Your task to perform on an android device: turn on translation in the chrome app Image 0: 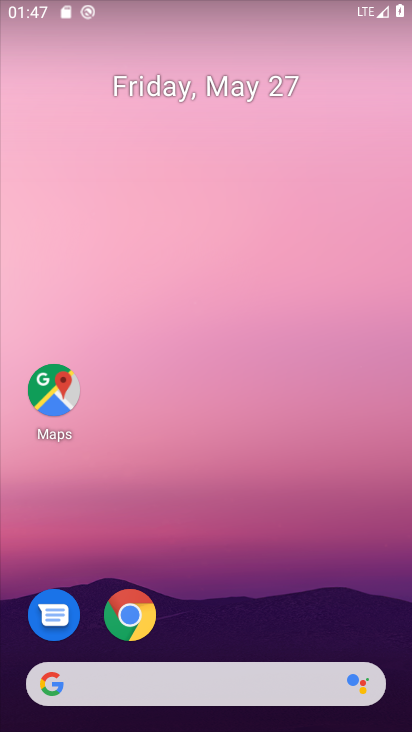
Step 0: drag from (361, 578) to (355, 162)
Your task to perform on an android device: turn on translation in the chrome app Image 1: 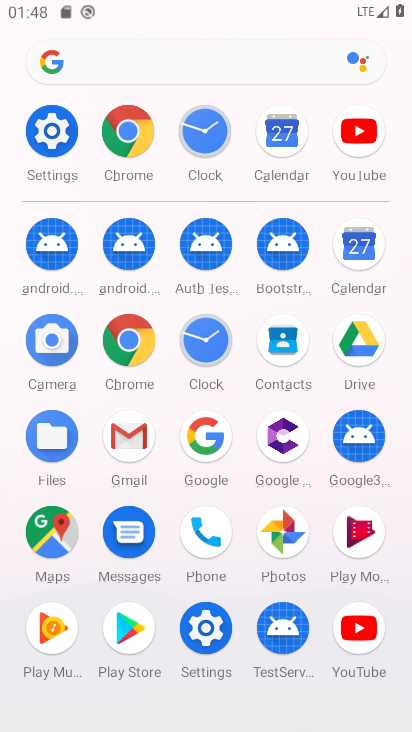
Step 1: click (138, 346)
Your task to perform on an android device: turn on translation in the chrome app Image 2: 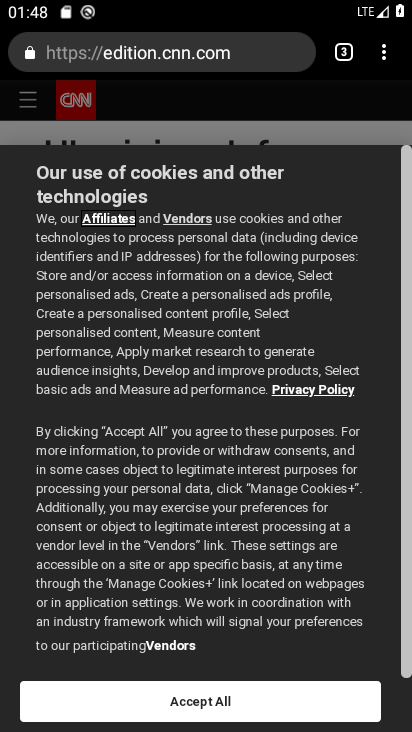
Step 2: click (138, 346)
Your task to perform on an android device: turn on translation in the chrome app Image 3: 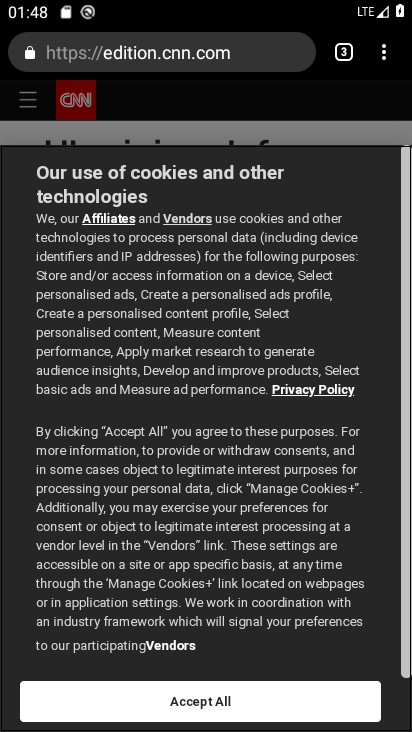
Step 3: click (382, 65)
Your task to perform on an android device: turn on translation in the chrome app Image 4: 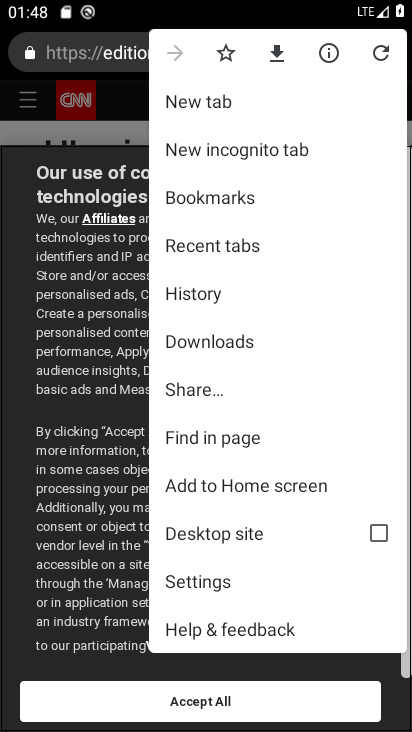
Step 4: click (219, 586)
Your task to perform on an android device: turn on translation in the chrome app Image 5: 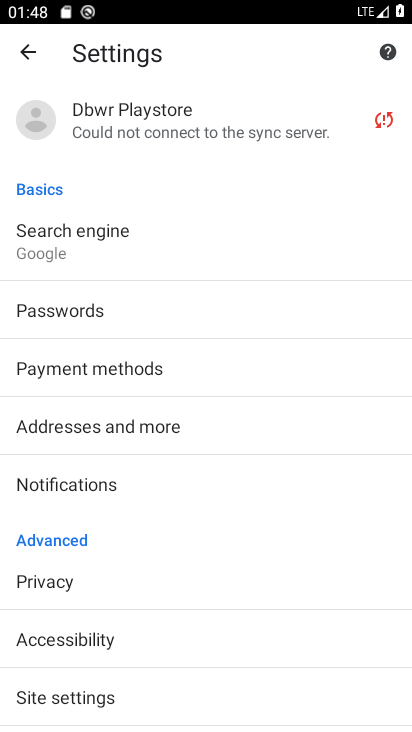
Step 5: drag from (248, 614) to (264, 537)
Your task to perform on an android device: turn on translation in the chrome app Image 6: 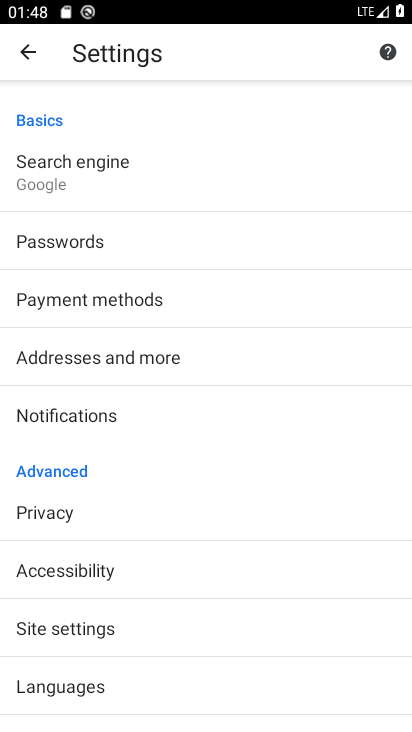
Step 6: drag from (299, 627) to (309, 565)
Your task to perform on an android device: turn on translation in the chrome app Image 7: 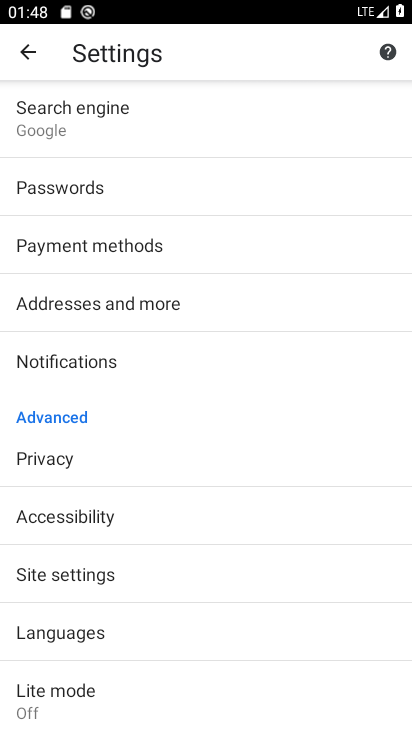
Step 7: drag from (321, 643) to (325, 549)
Your task to perform on an android device: turn on translation in the chrome app Image 8: 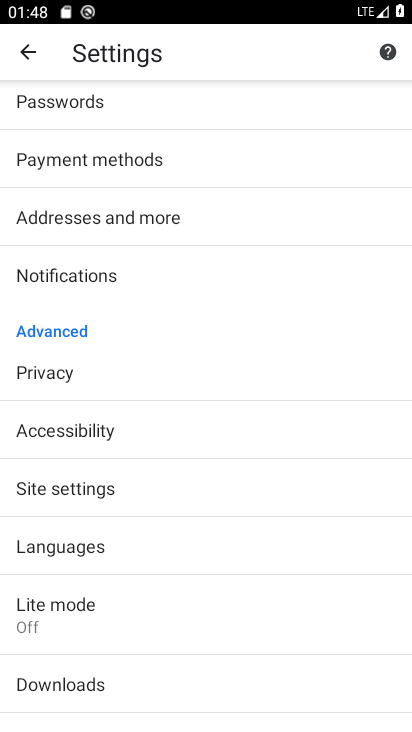
Step 8: drag from (323, 653) to (330, 560)
Your task to perform on an android device: turn on translation in the chrome app Image 9: 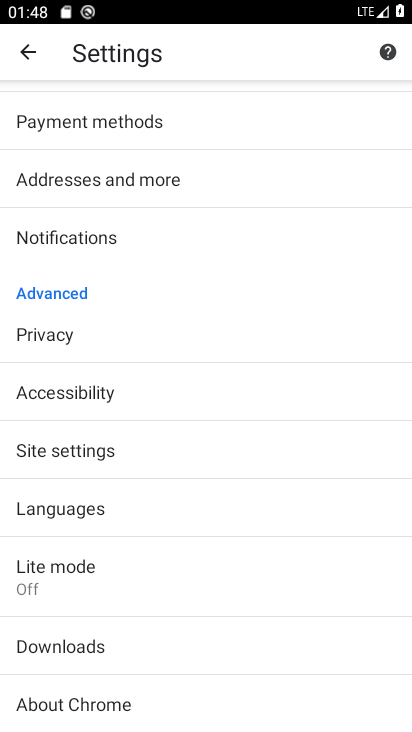
Step 9: drag from (314, 629) to (321, 470)
Your task to perform on an android device: turn on translation in the chrome app Image 10: 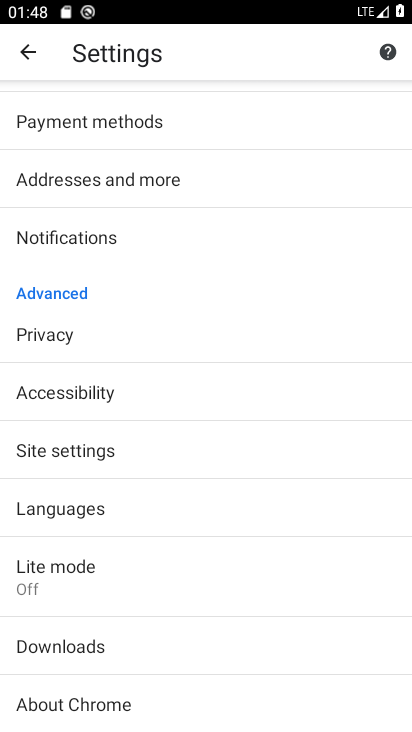
Step 10: click (284, 498)
Your task to perform on an android device: turn on translation in the chrome app Image 11: 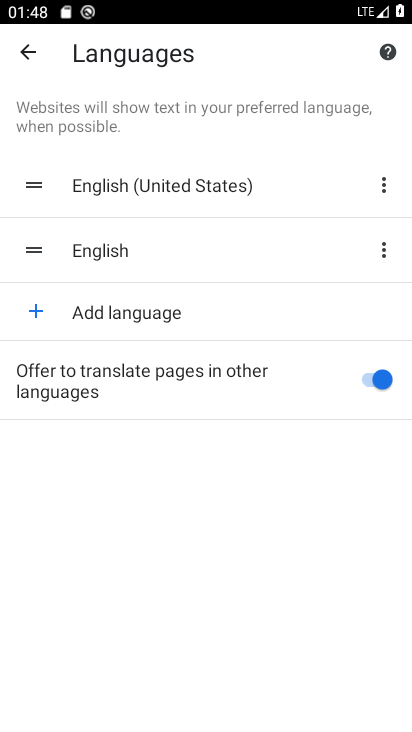
Step 11: task complete